Your task to perform on an android device: Open Maps and search for coffee Image 0: 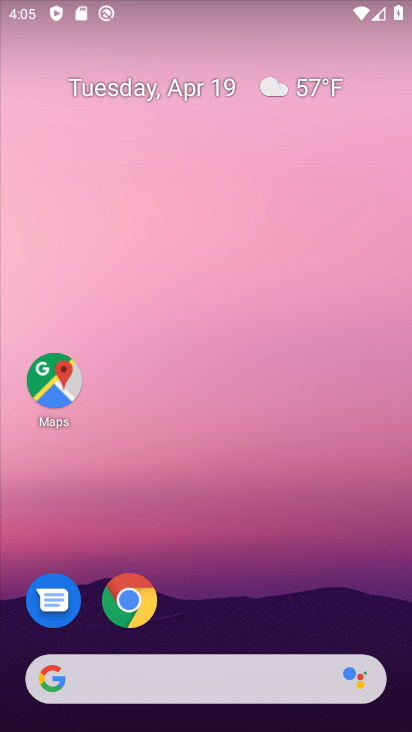
Step 0: click (53, 357)
Your task to perform on an android device: Open Maps and search for coffee Image 1: 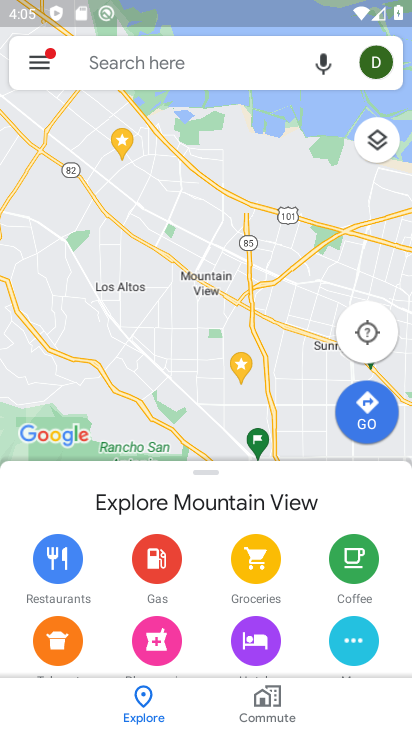
Step 1: click (211, 75)
Your task to perform on an android device: Open Maps and search for coffee Image 2: 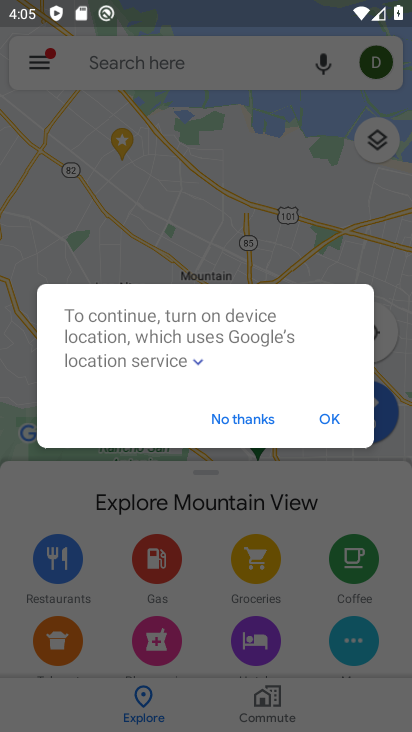
Step 2: click (330, 426)
Your task to perform on an android device: Open Maps and search for coffee Image 3: 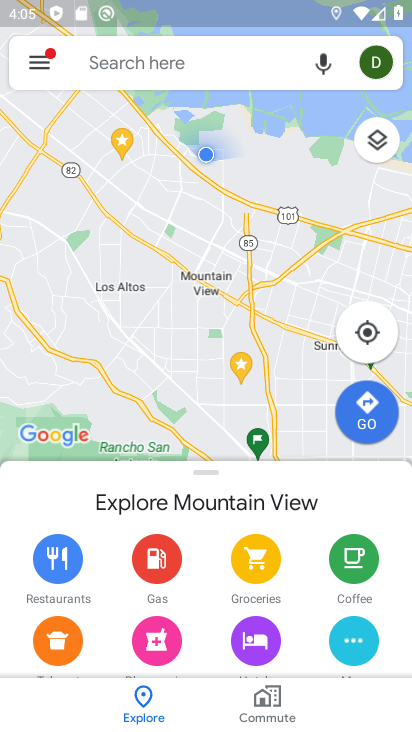
Step 3: click (227, 53)
Your task to perform on an android device: Open Maps and search for coffee Image 4: 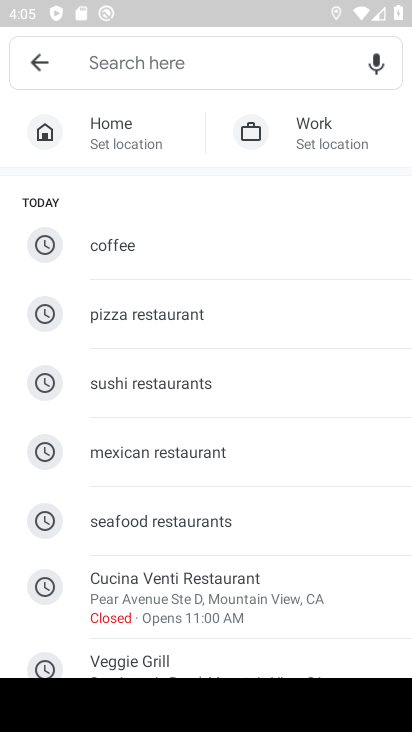
Step 4: type "coffee"
Your task to perform on an android device: Open Maps and search for coffee Image 5: 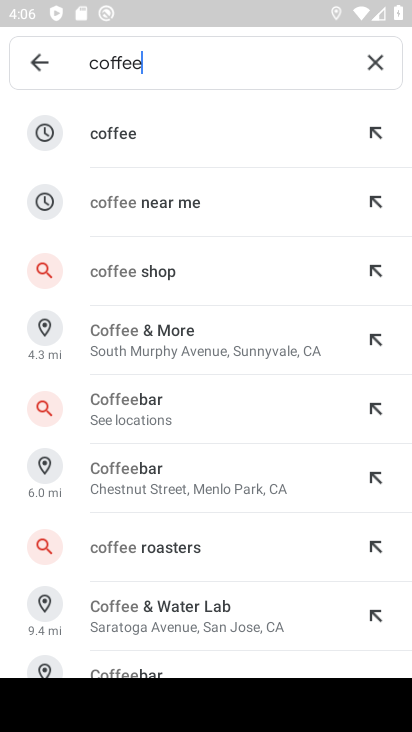
Step 5: click (177, 149)
Your task to perform on an android device: Open Maps and search for coffee Image 6: 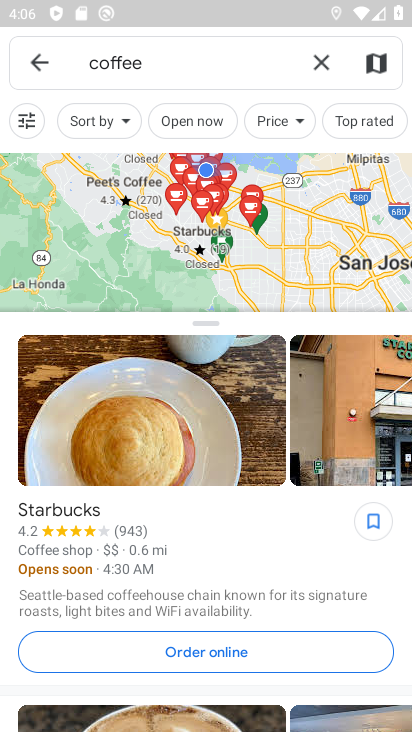
Step 6: task complete